Your task to perform on an android device: Show the shopping cart on walmart.com. Add energizer triple a to the cart on walmart.com, then select checkout. Image 0: 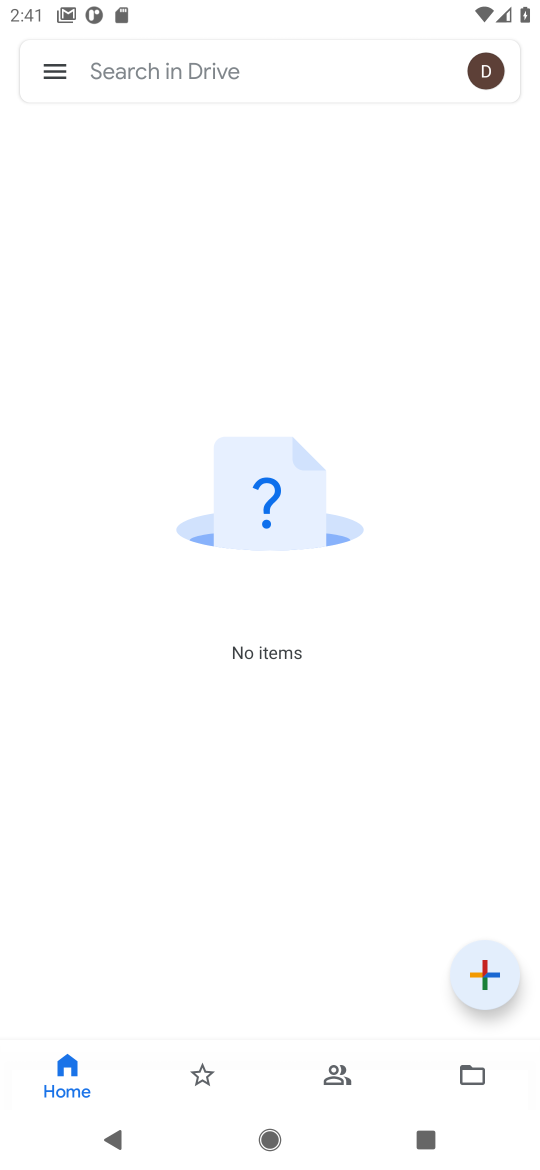
Step 0: press home button
Your task to perform on an android device: Show the shopping cart on walmart.com. Add energizer triple a to the cart on walmart.com, then select checkout. Image 1: 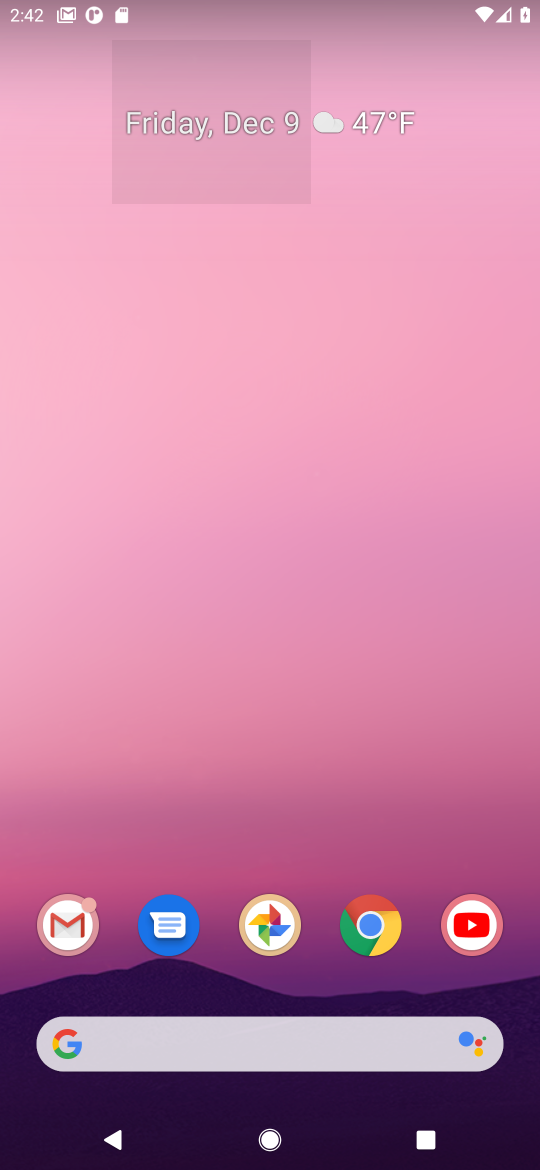
Step 1: click (382, 922)
Your task to perform on an android device: Show the shopping cart on walmart.com. Add energizer triple a to the cart on walmart.com, then select checkout. Image 2: 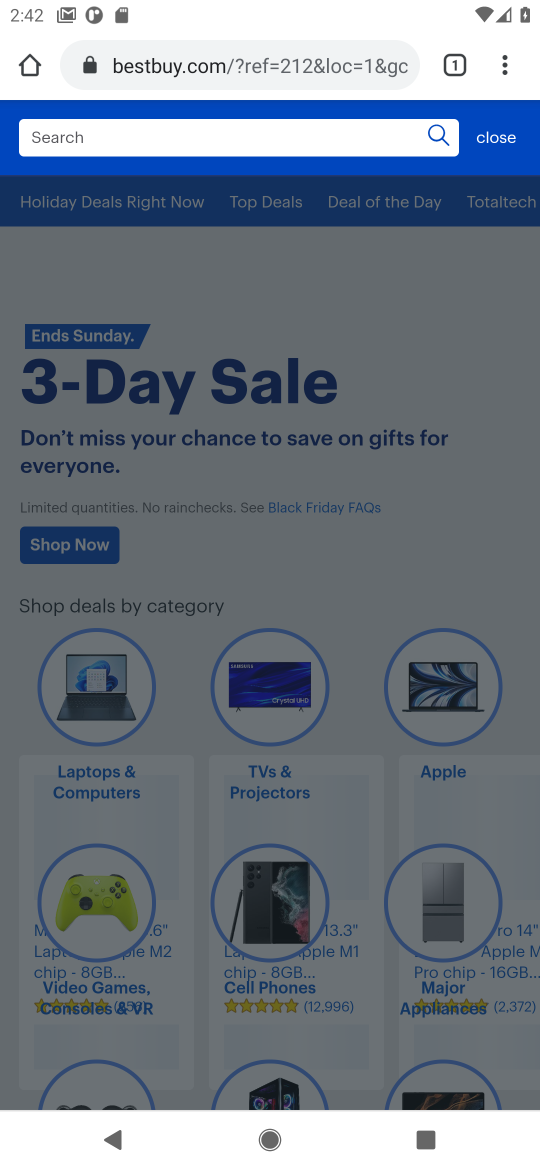
Step 2: click (257, 58)
Your task to perform on an android device: Show the shopping cart on walmart.com. Add energizer triple a to the cart on walmart.com, then select checkout. Image 3: 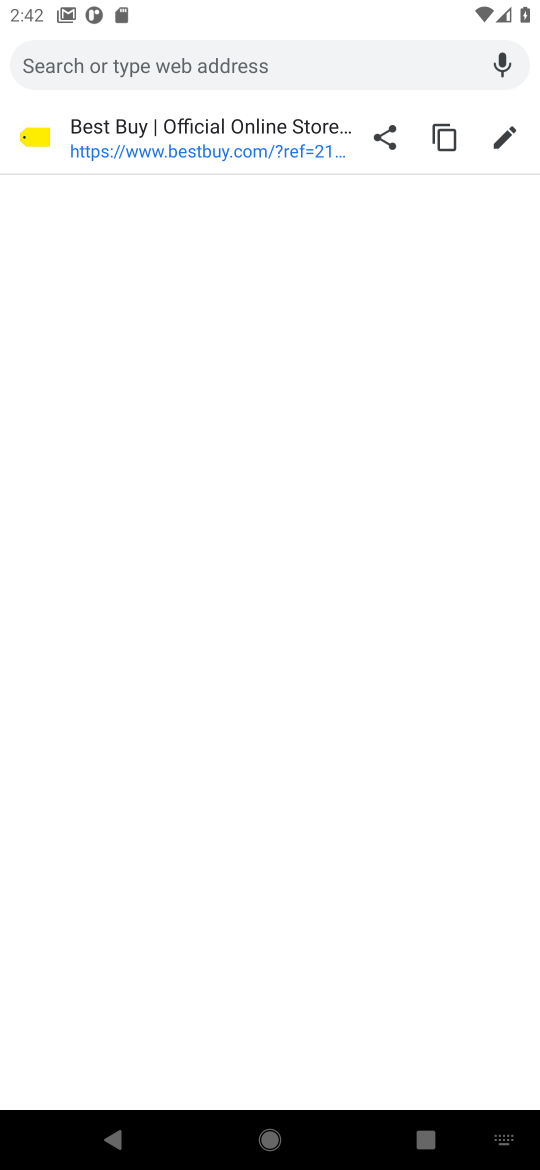
Step 3: type "WALMART"
Your task to perform on an android device: Show the shopping cart on walmart.com. Add energizer triple a to the cart on walmart.com, then select checkout. Image 4: 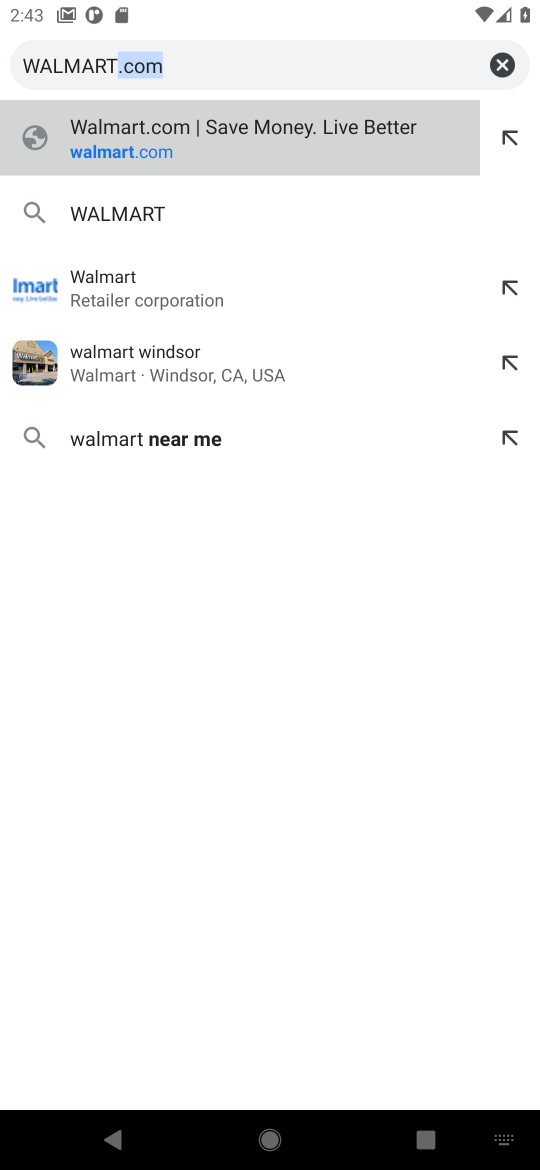
Step 4: click (214, 133)
Your task to perform on an android device: Show the shopping cart on walmart.com. Add energizer triple a to the cart on walmart.com, then select checkout. Image 5: 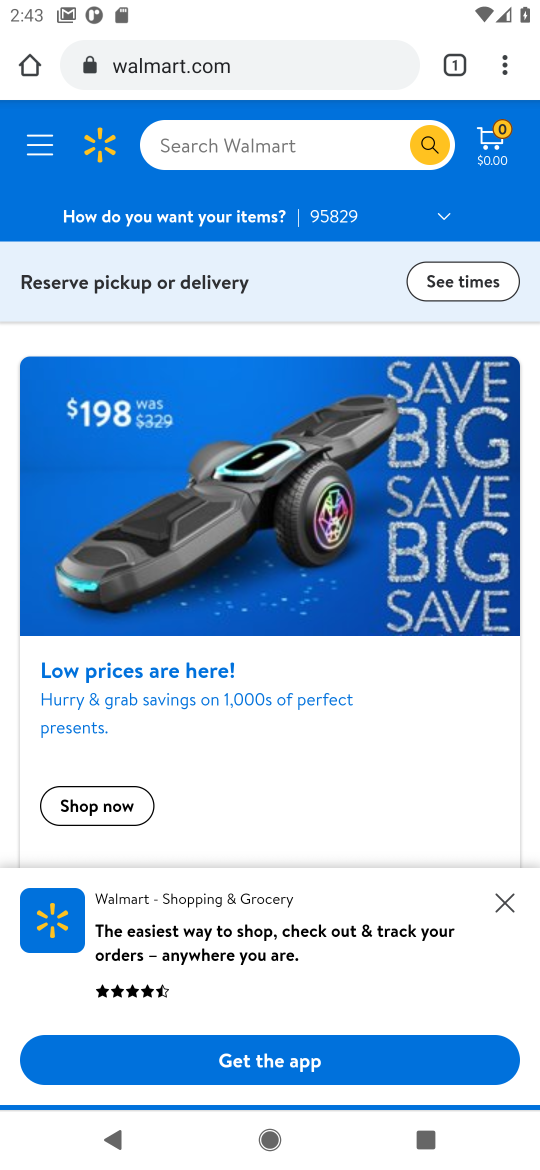
Step 5: click (284, 133)
Your task to perform on an android device: Show the shopping cart on walmart.com. Add energizer triple a to the cart on walmart.com, then select checkout. Image 6: 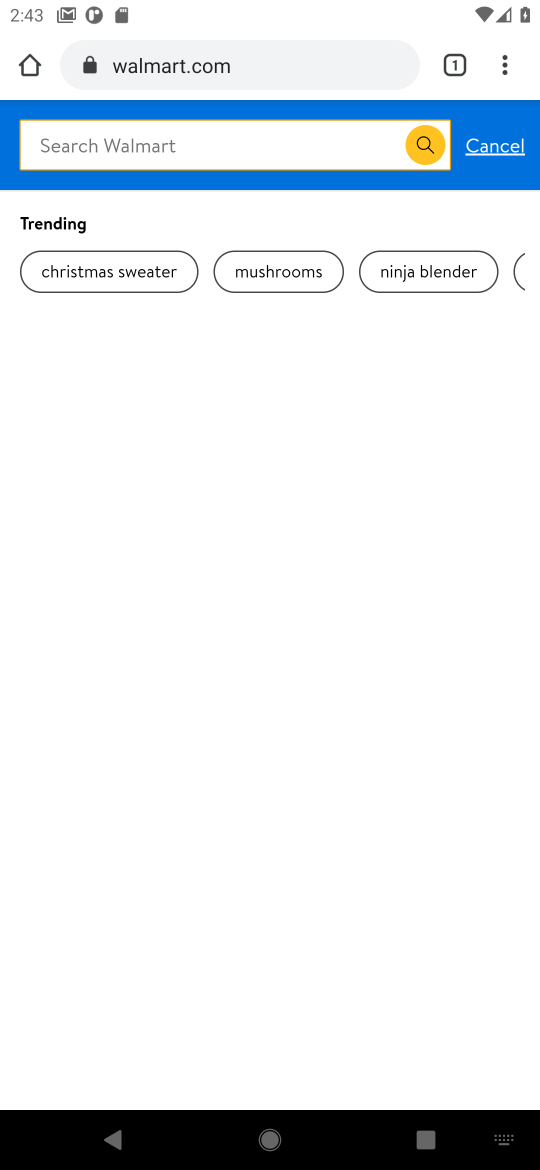
Step 6: type "energizer triple a"
Your task to perform on an android device: Show the shopping cart on walmart.com. Add energizer triple a to the cart on walmart.com, then select checkout. Image 7: 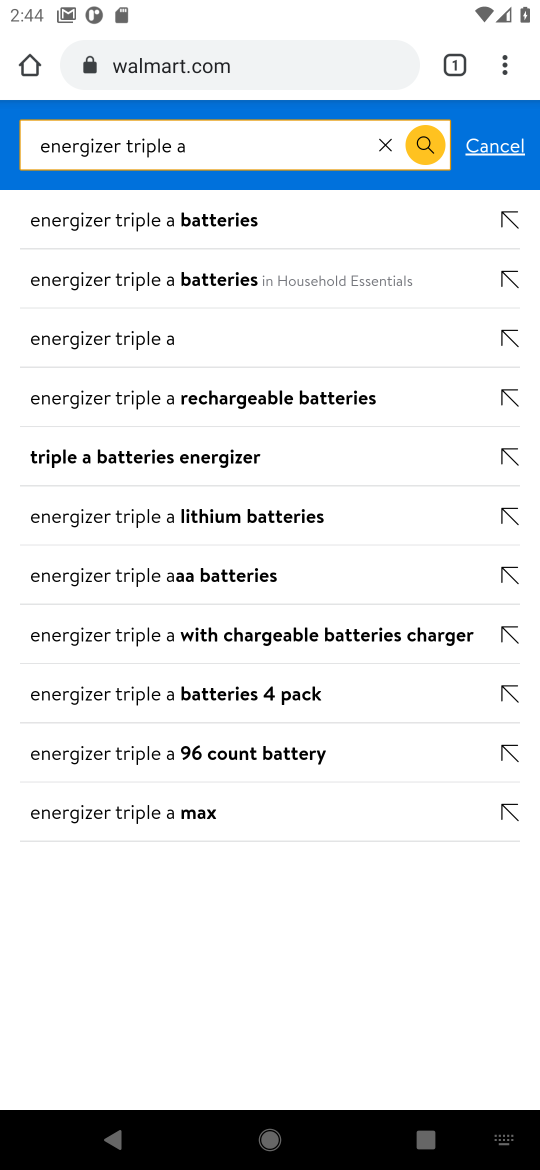
Step 7: click (164, 218)
Your task to perform on an android device: Show the shopping cart on walmart.com. Add energizer triple a to the cart on walmart.com, then select checkout. Image 8: 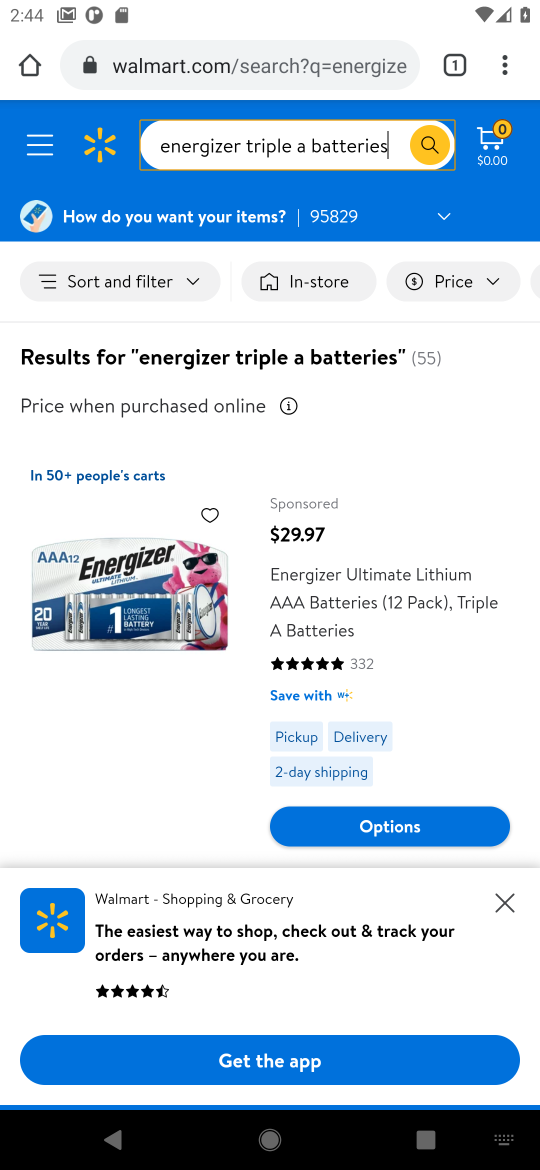
Step 8: click (399, 625)
Your task to perform on an android device: Show the shopping cart on walmart.com. Add energizer triple a to the cart on walmart.com, then select checkout. Image 9: 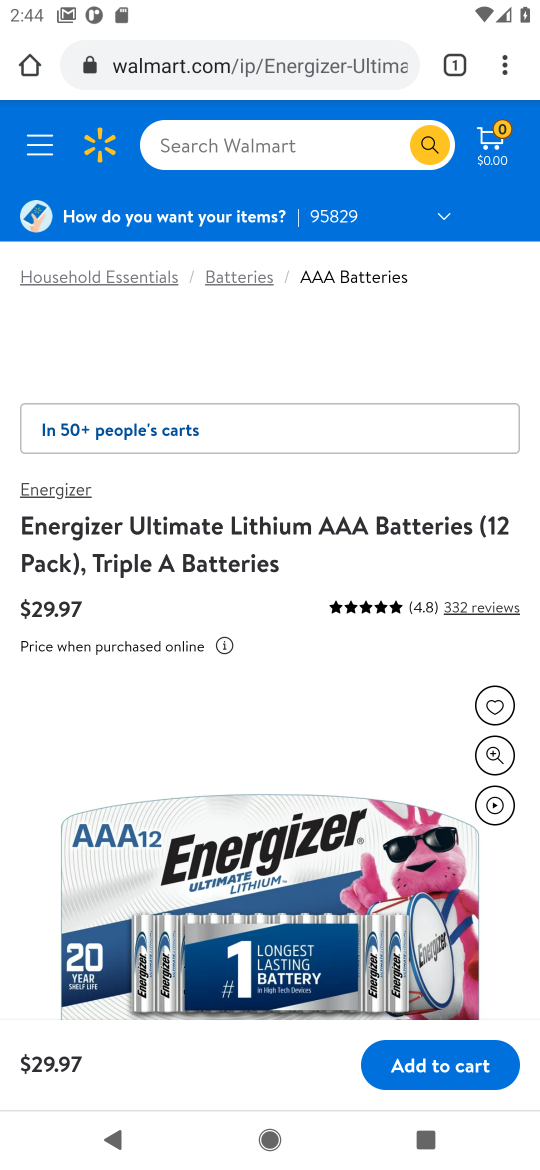
Step 9: click (439, 1060)
Your task to perform on an android device: Show the shopping cart on walmart.com. Add energizer triple a to the cart on walmart.com, then select checkout. Image 10: 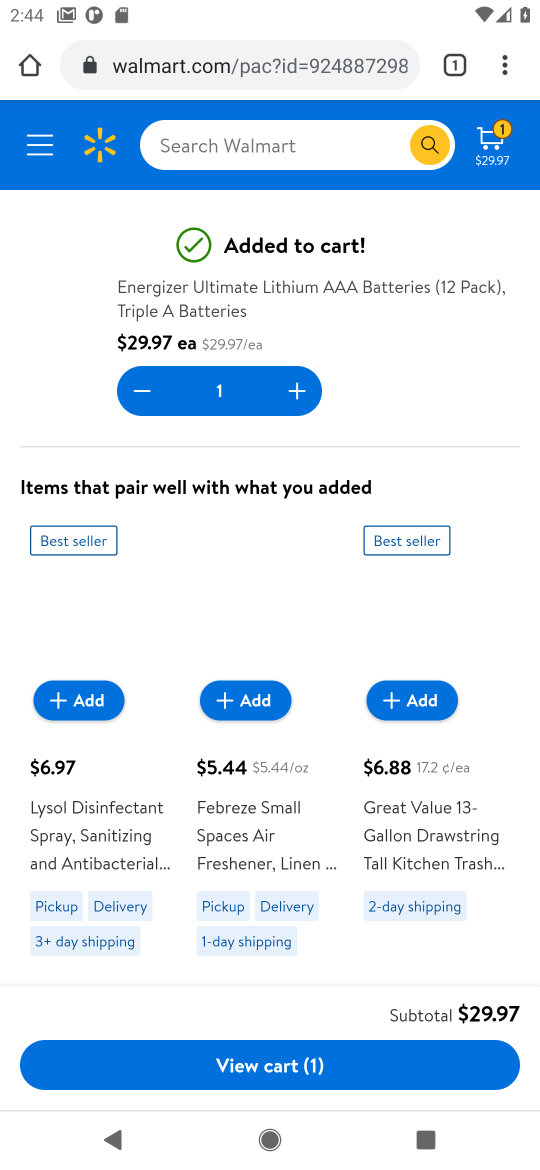
Step 10: click (309, 1073)
Your task to perform on an android device: Show the shopping cart on walmart.com. Add energizer triple a to the cart on walmart.com, then select checkout. Image 11: 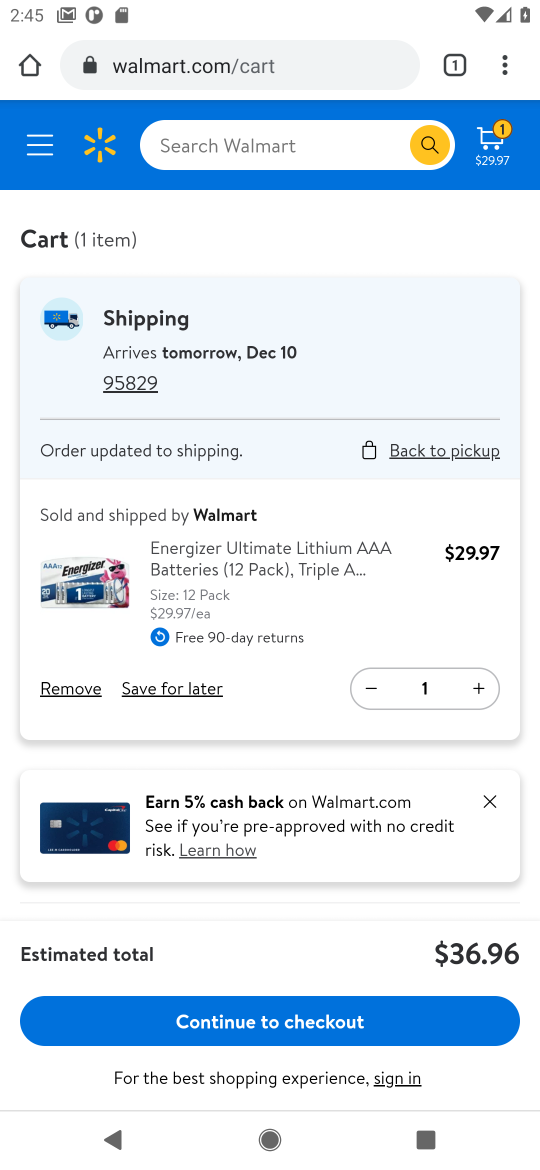
Step 11: click (273, 1025)
Your task to perform on an android device: Show the shopping cart on walmart.com. Add energizer triple a to the cart on walmart.com, then select checkout. Image 12: 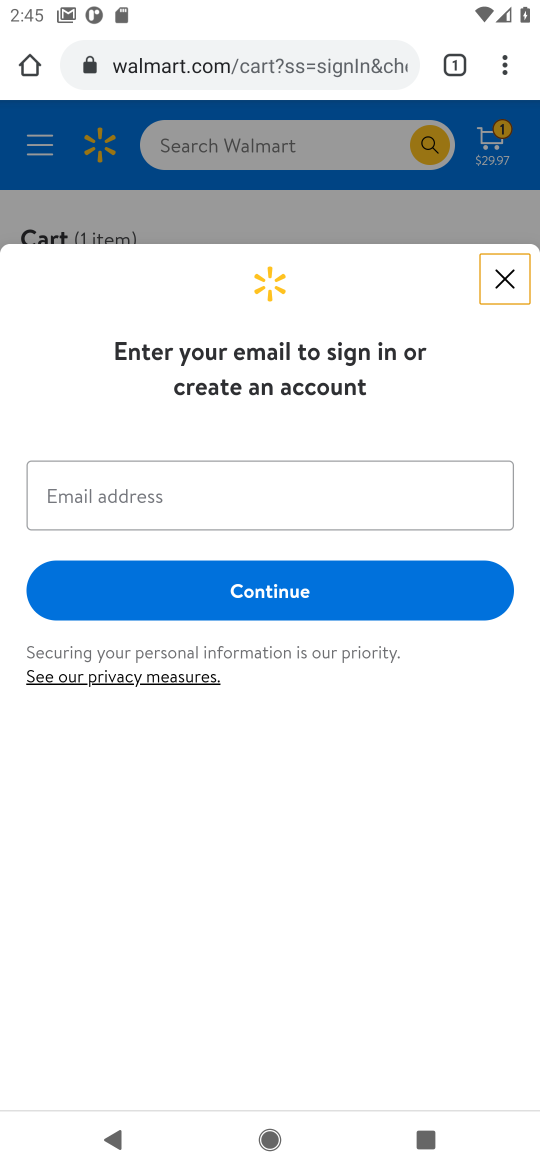
Step 12: task complete